Your task to perform on an android device: Is it going to rain tomorrow? Image 0: 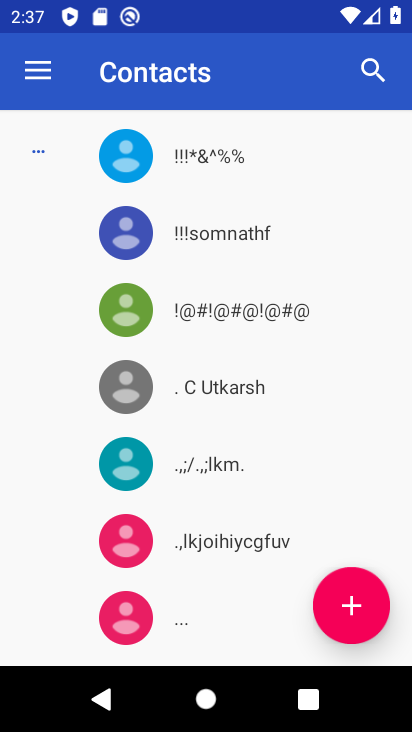
Step 0: press home button
Your task to perform on an android device: Is it going to rain tomorrow? Image 1: 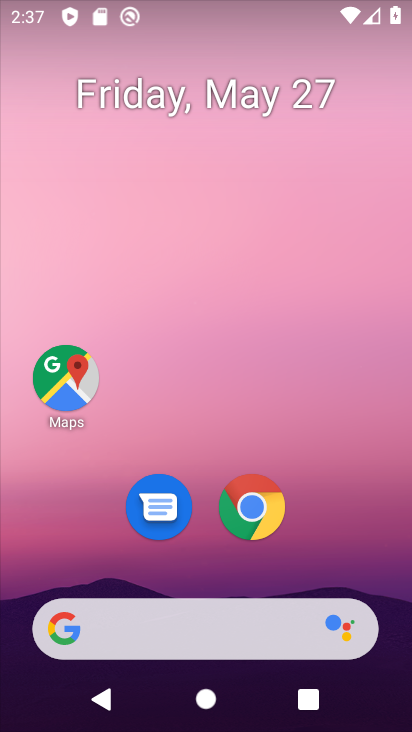
Step 1: drag from (390, 585) to (352, 142)
Your task to perform on an android device: Is it going to rain tomorrow? Image 2: 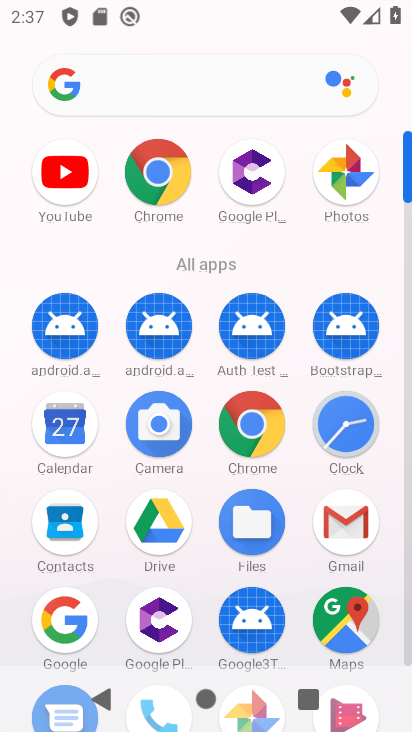
Step 2: click (266, 431)
Your task to perform on an android device: Is it going to rain tomorrow? Image 3: 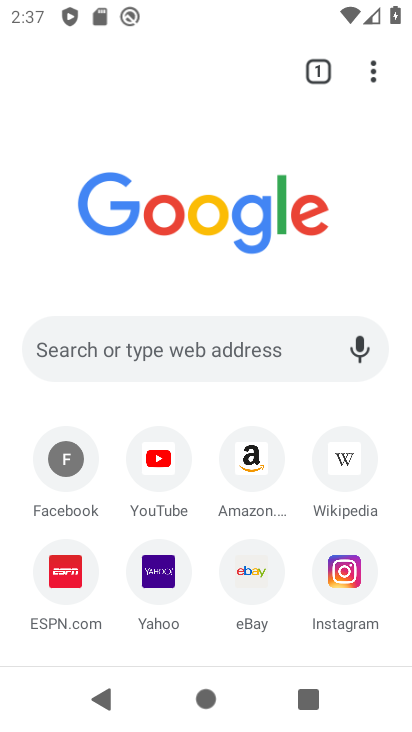
Step 3: click (248, 346)
Your task to perform on an android device: Is it going to rain tomorrow? Image 4: 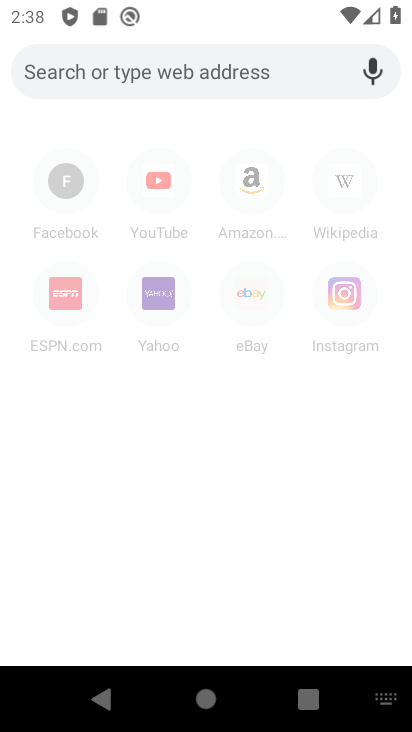
Step 4: type "is it going to rain tomorrow"
Your task to perform on an android device: Is it going to rain tomorrow? Image 5: 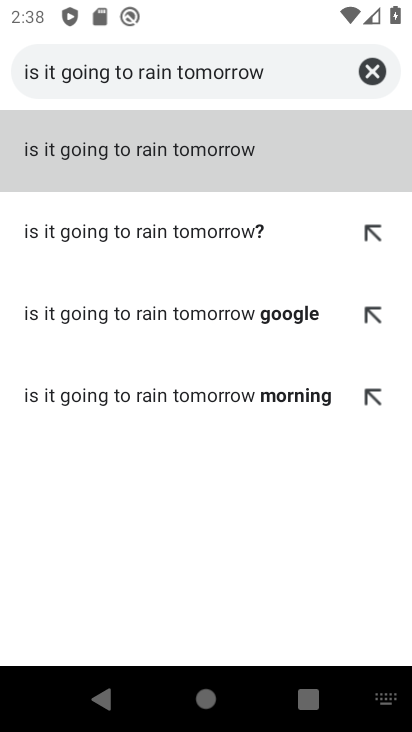
Step 5: click (140, 169)
Your task to perform on an android device: Is it going to rain tomorrow? Image 6: 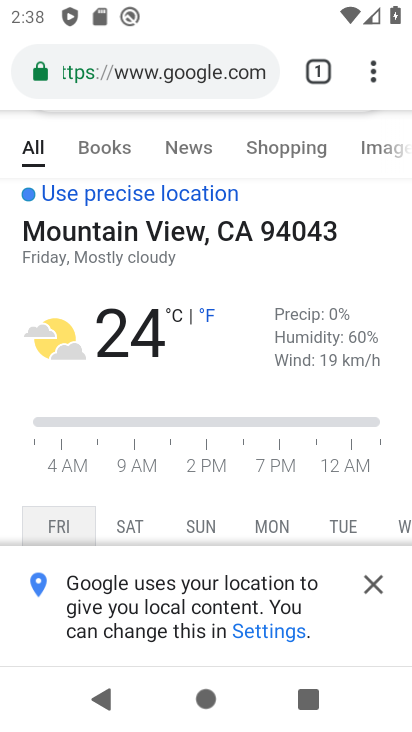
Step 6: task complete